Your task to perform on an android device: set the stopwatch Image 0: 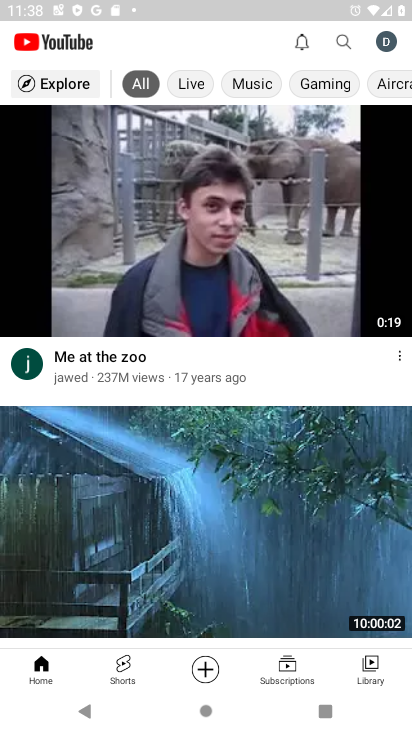
Step 0: press home button
Your task to perform on an android device: set the stopwatch Image 1: 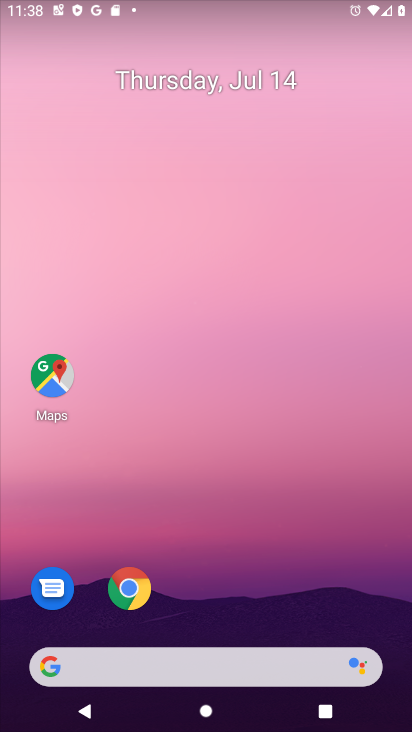
Step 1: drag from (296, 582) to (267, 29)
Your task to perform on an android device: set the stopwatch Image 2: 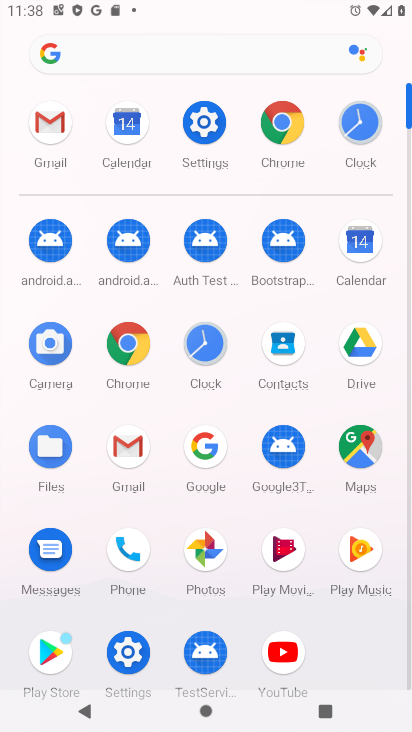
Step 2: click (202, 365)
Your task to perform on an android device: set the stopwatch Image 3: 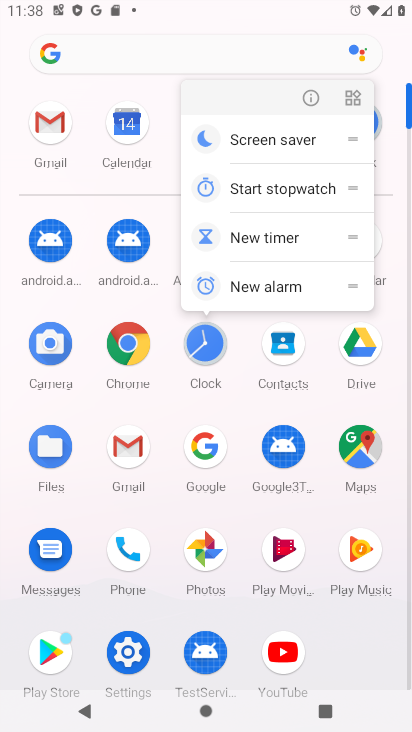
Step 3: click (212, 338)
Your task to perform on an android device: set the stopwatch Image 4: 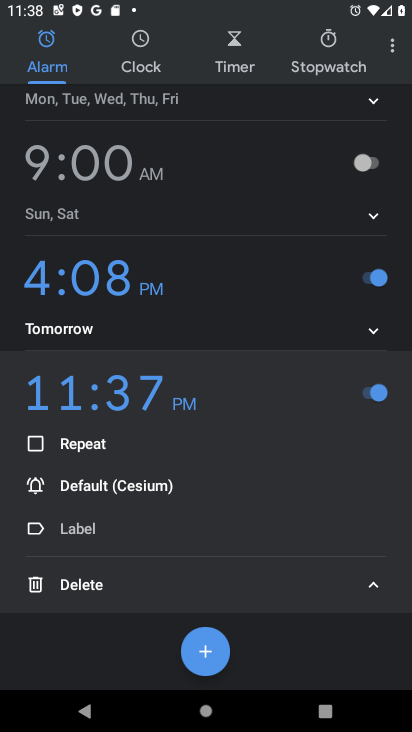
Step 4: click (340, 67)
Your task to perform on an android device: set the stopwatch Image 5: 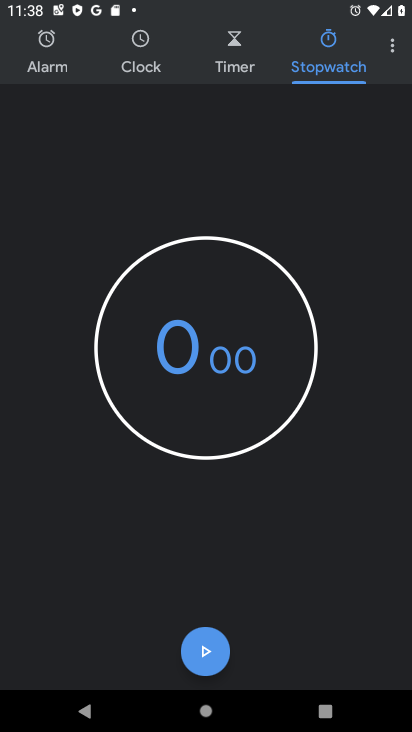
Step 5: click (209, 653)
Your task to perform on an android device: set the stopwatch Image 6: 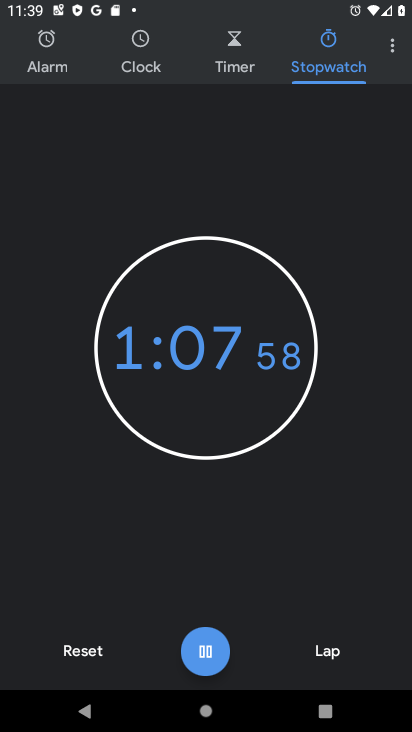
Step 6: task complete